Your task to perform on an android device: Open the map Image 0: 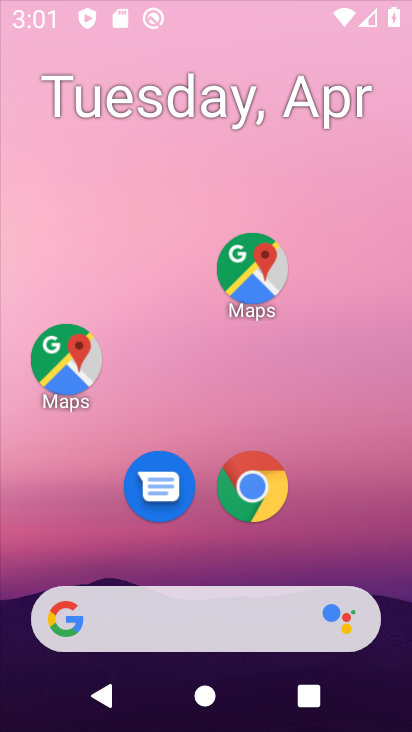
Step 0: drag from (289, 561) to (323, 215)
Your task to perform on an android device: Open the map Image 1: 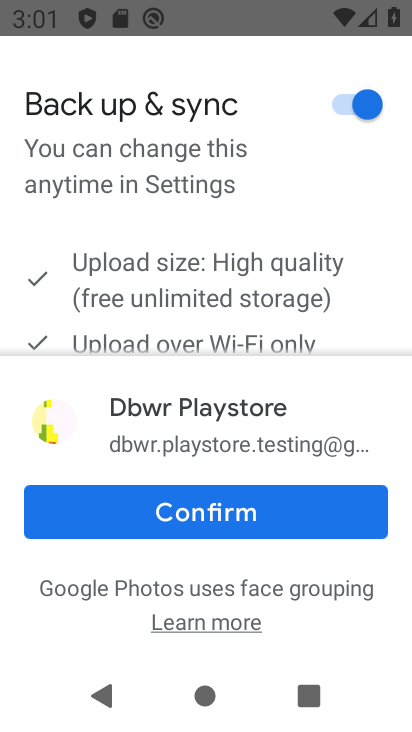
Step 1: press home button
Your task to perform on an android device: Open the map Image 2: 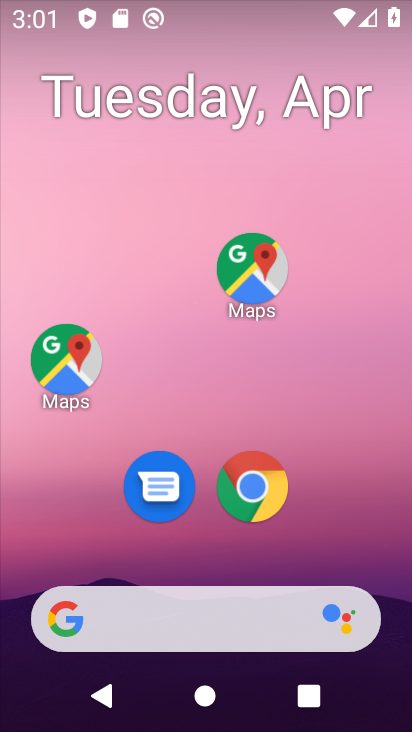
Step 2: click (245, 288)
Your task to perform on an android device: Open the map Image 3: 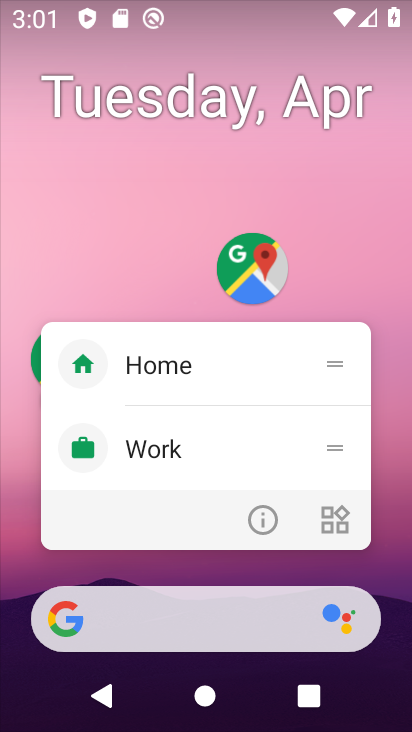
Step 3: click (267, 532)
Your task to perform on an android device: Open the map Image 4: 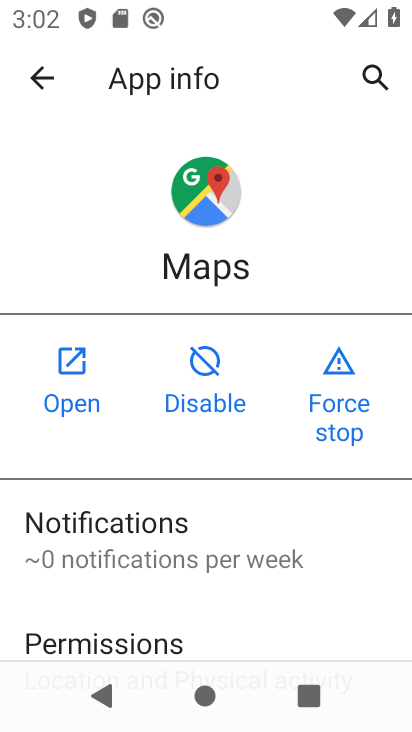
Step 4: click (93, 379)
Your task to perform on an android device: Open the map Image 5: 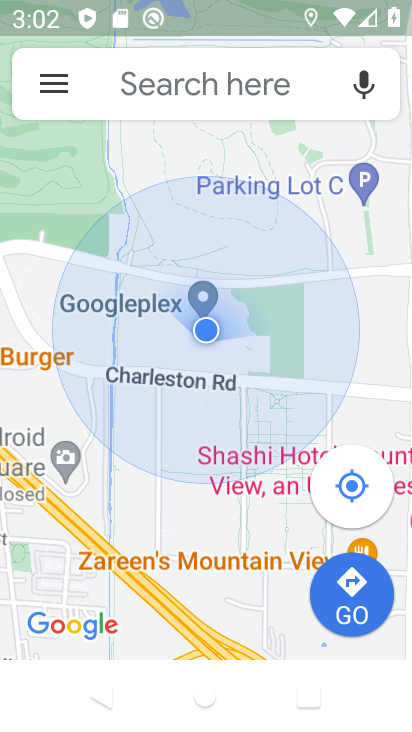
Step 5: task complete